Your task to perform on an android device: Open settings Image 0: 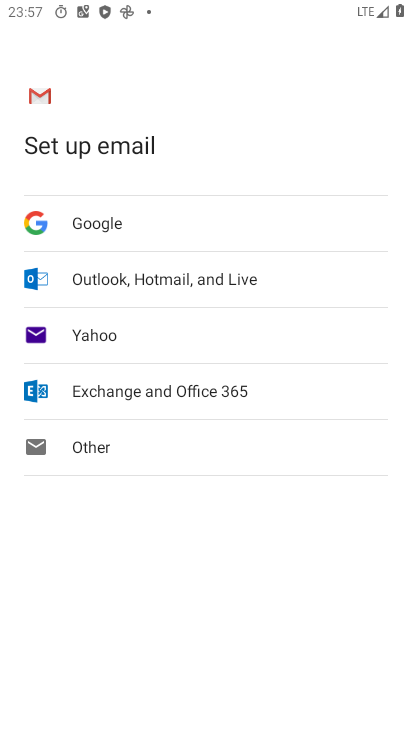
Step 0: press home button
Your task to perform on an android device: Open settings Image 1: 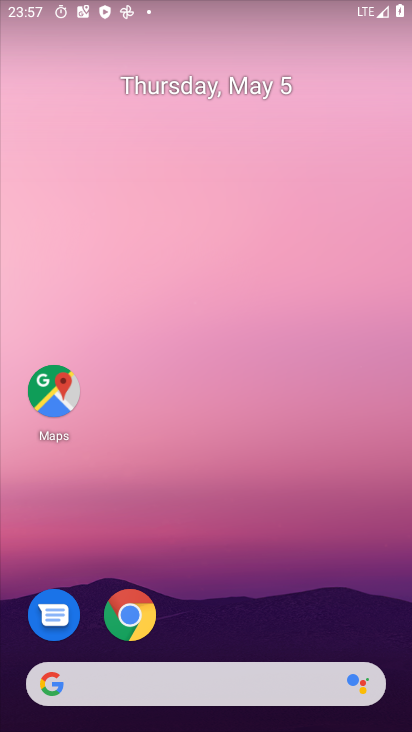
Step 1: drag from (258, 585) to (292, 125)
Your task to perform on an android device: Open settings Image 2: 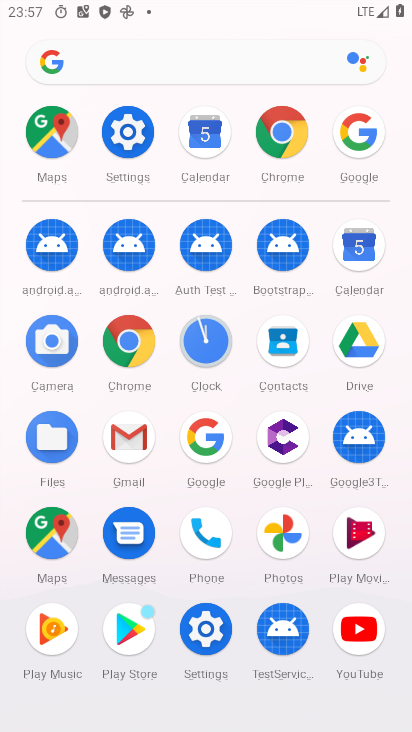
Step 2: click (127, 135)
Your task to perform on an android device: Open settings Image 3: 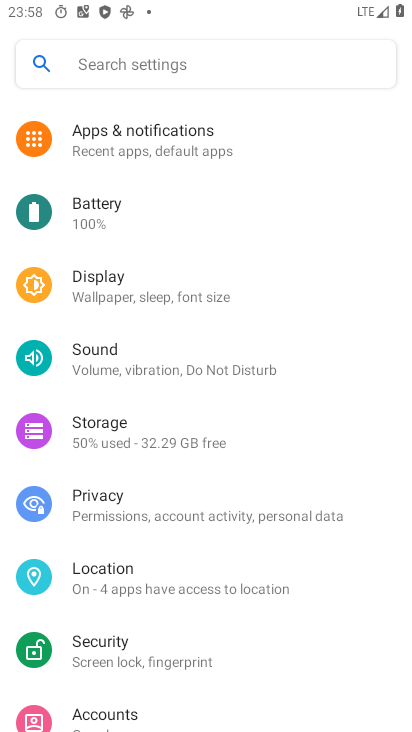
Step 3: task complete